Your task to perform on an android device: Search for vegetarian restaurants on Maps Image 0: 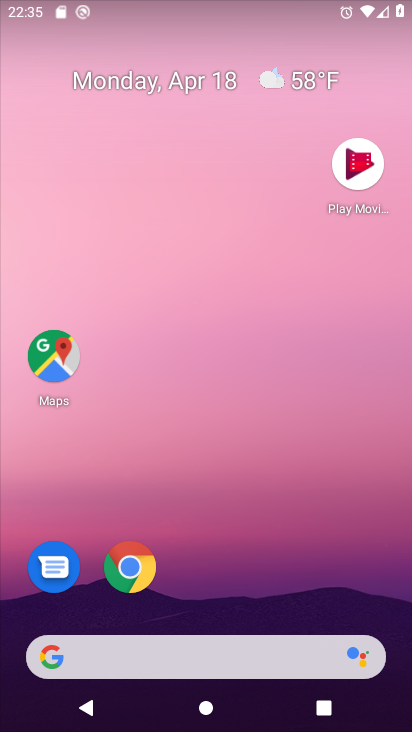
Step 0: drag from (207, 442) to (267, 174)
Your task to perform on an android device: Search for vegetarian restaurants on Maps Image 1: 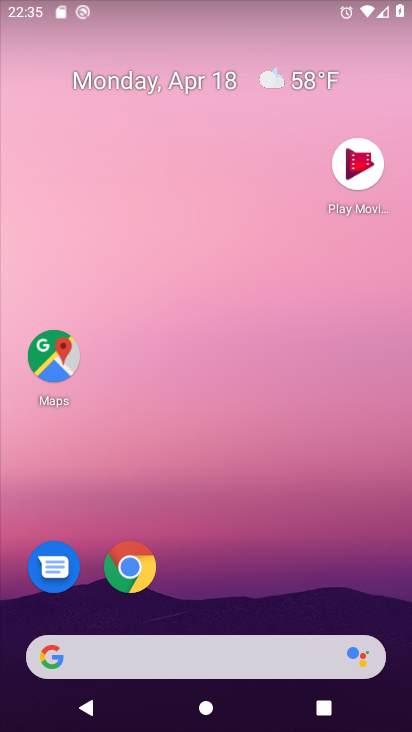
Step 1: drag from (190, 576) to (208, 158)
Your task to perform on an android device: Search for vegetarian restaurants on Maps Image 2: 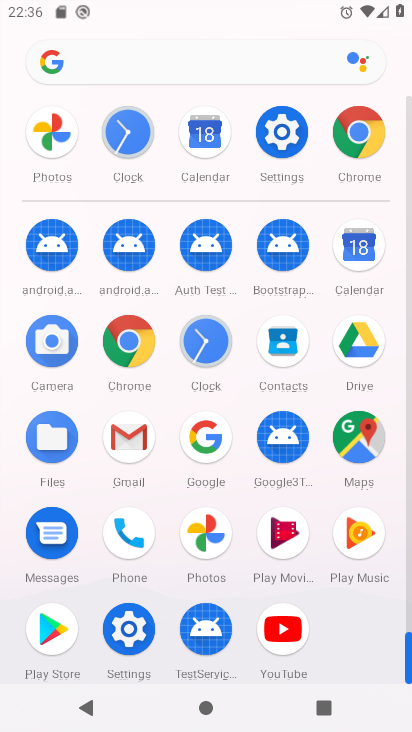
Step 2: click (347, 430)
Your task to perform on an android device: Search for vegetarian restaurants on Maps Image 3: 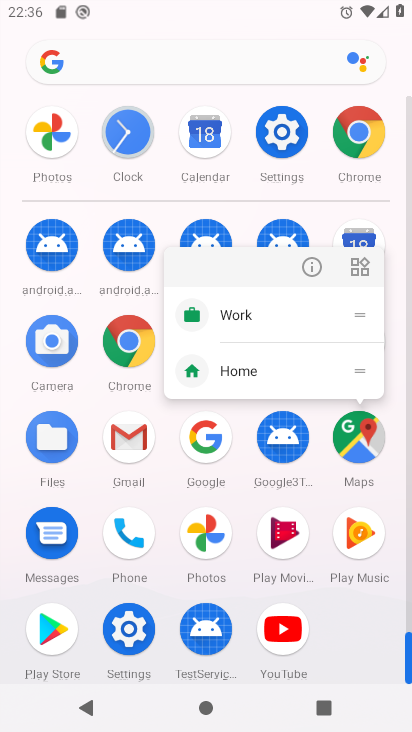
Step 3: click (304, 254)
Your task to perform on an android device: Search for vegetarian restaurants on Maps Image 4: 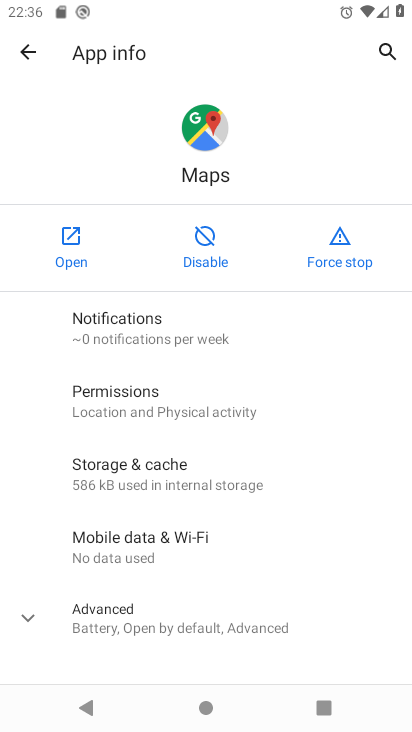
Step 4: click (62, 231)
Your task to perform on an android device: Search for vegetarian restaurants on Maps Image 5: 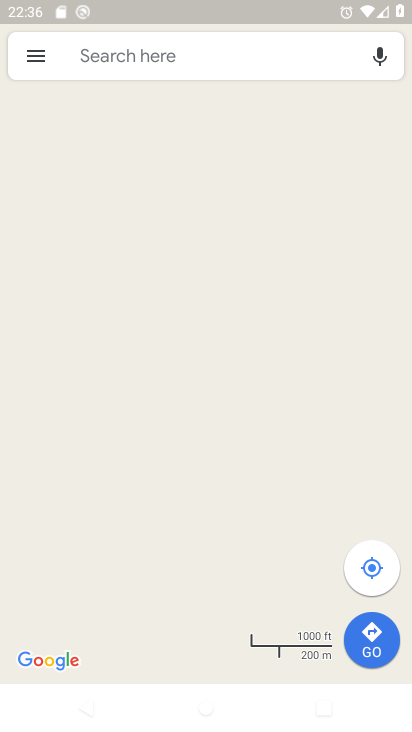
Step 5: click (116, 59)
Your task to perform on an android device: Search for vegetarian restaurants on Maps Image 6: 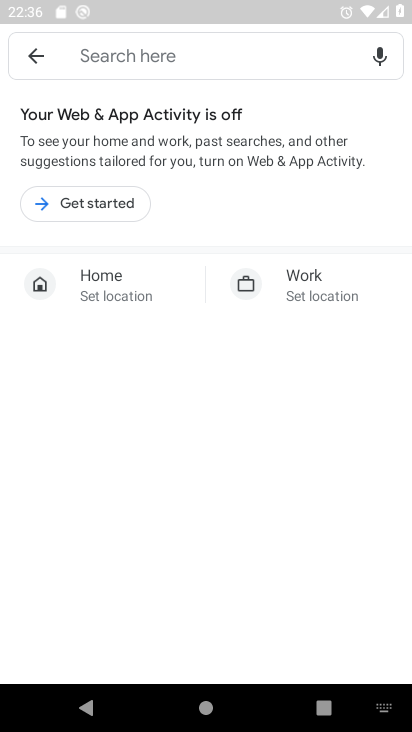
Step 6: drag from (215, 520) to (267, 129)
Your task to perform on an android device: Search for vegetarian restaurants on Maps Image 7: 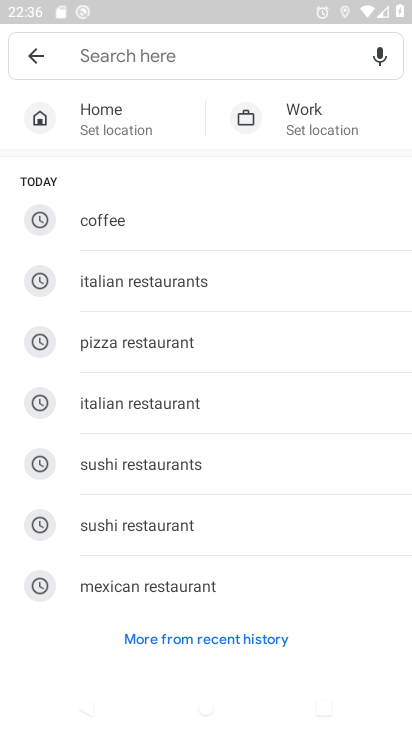
Step 7: type "vegetarian"
Your task to perform on an android device: Search for vegetarian restaurants on Maps Image 8: 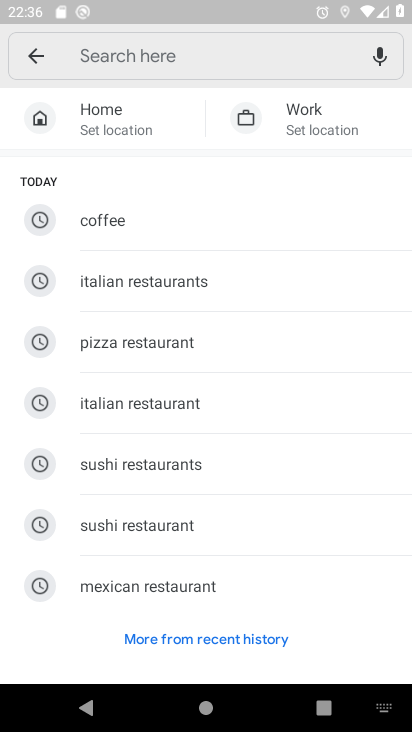
Step 8: click (123, 63)
Your task to perform on an android device: Search for vegetarian restaurants on Maps Image 9: 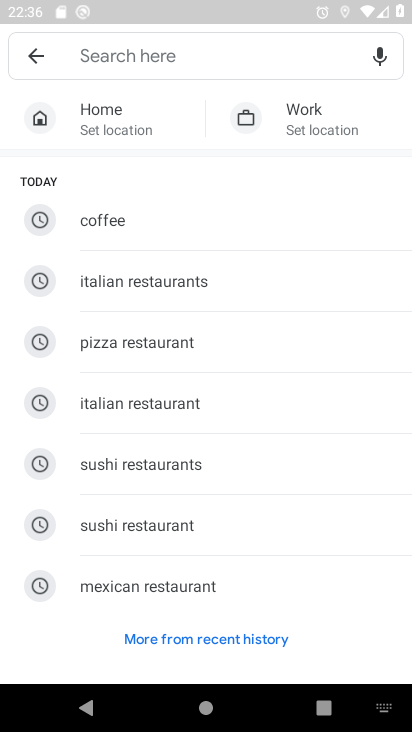
Step 9: type "vegetarian"
Your task to perform on an android device: Search for vegetarian restaurants on Maps Image 10: 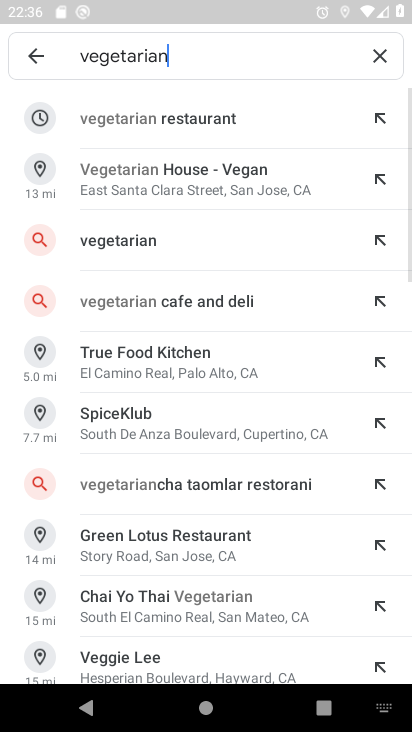
Step 10: click (175, 135)
Your task to perform on an android device: Search for vegetarian restaurants on Maps Image 11: 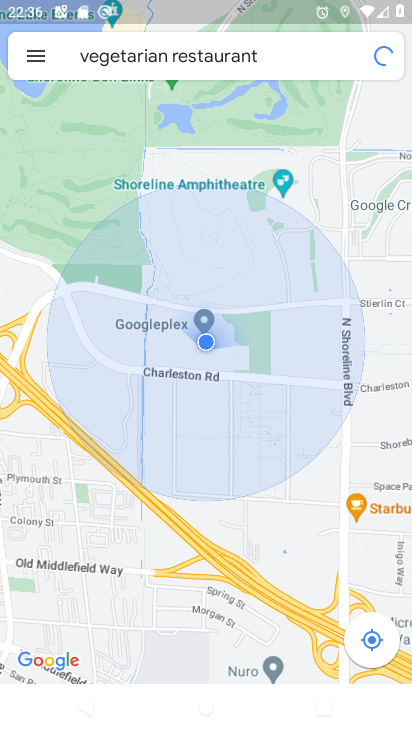
Step 11: task complete